Your task to perform on an android device: turn on the 24-hour format for clock Image 0: 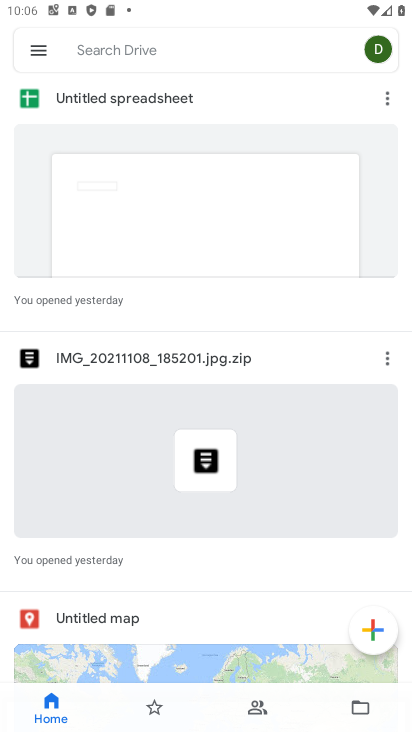
Step 0: press home button
Your task to perform on an android device: turn on the 24-hour format for clock Image 1: 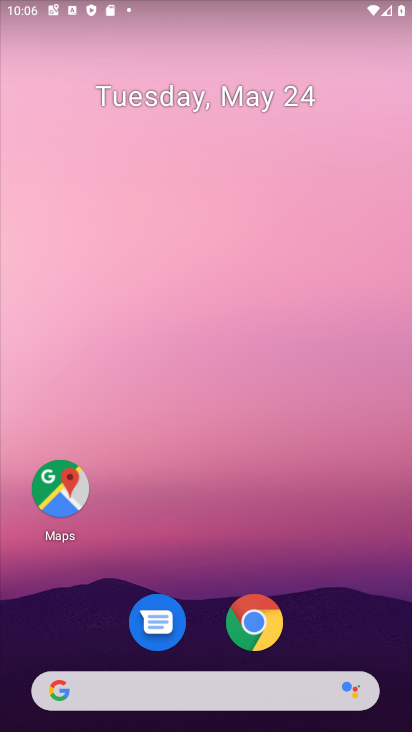
Step 1: drag from (260, 708) to (257, 154)
Your task to perform on an android device: turn on the 24-hour format for clock Image 2: 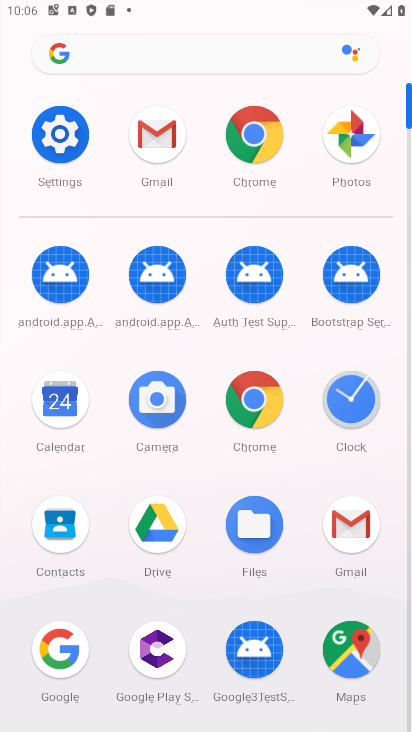
Step 2: click (352, 393)
Your task to perform on an android device: turn on the 24-hour format for clock Image 3: 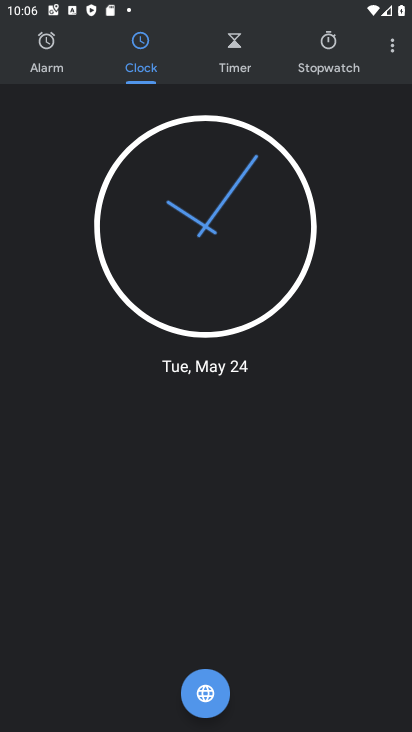
Step 3: click (391, 53)
Your task to perform on an android device: turn on the 24-hour format for clock Image 4: 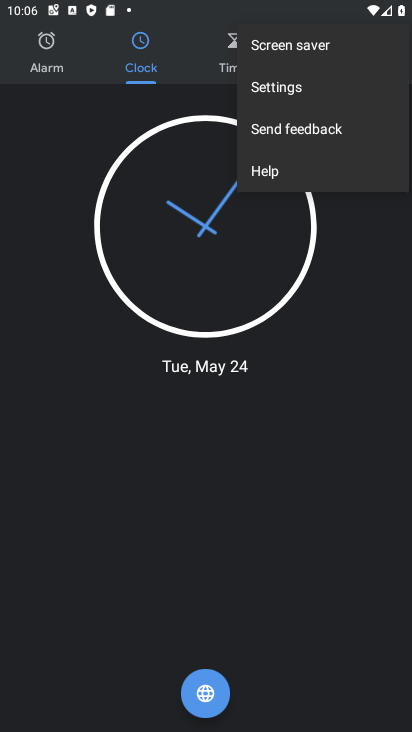
Step 4: click (287, 93)
Your task to perform on an android device: turn on the 24-hour format for clock Image 5: 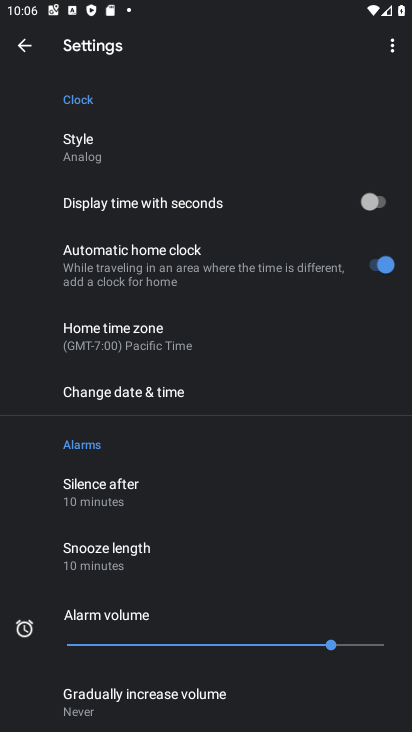
Step 5: click (136, 391)
Your task to perform on an android device: turn on the 24-hour format for clock Image 6: 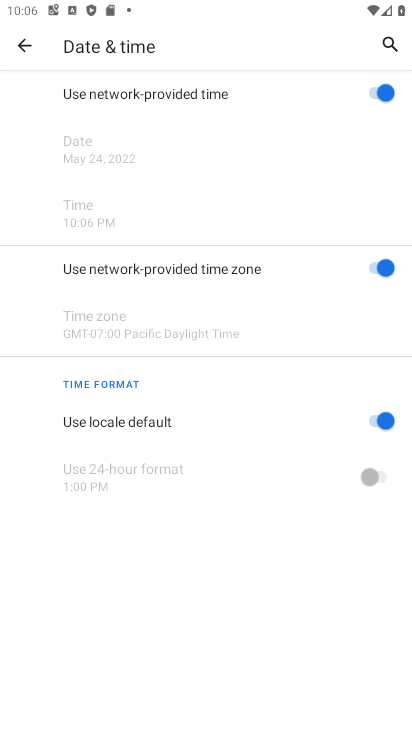
Step 6: click (367, 409)
Your task to perform on an android device: turn on the 24-hour format for clock Image 7: 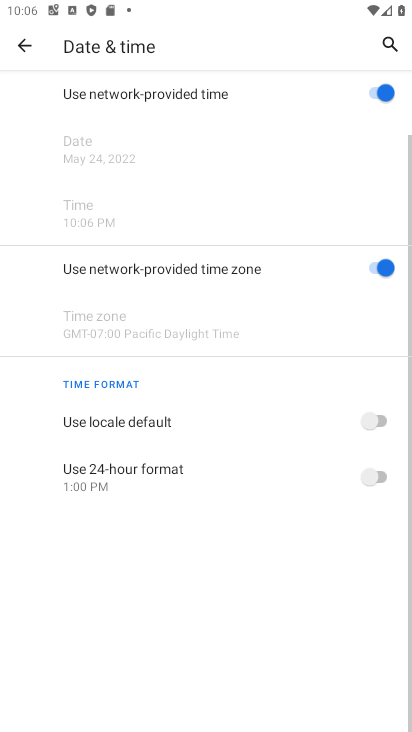
Step 7: click (370, 475)
Your task to perform on an android device: turn on the 24-hour format for clock Image 8: 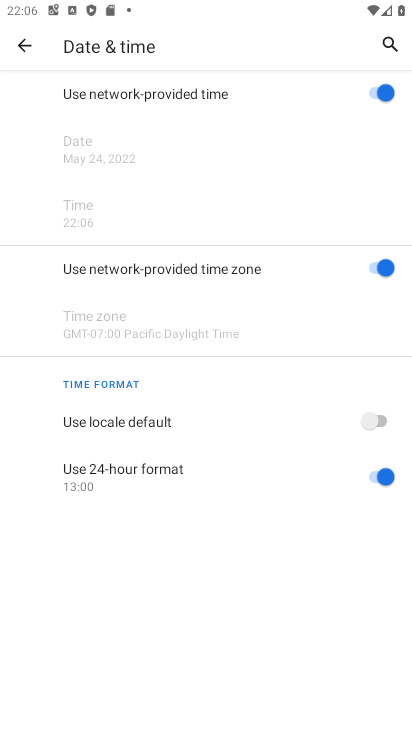
Step 8: task complete